Your task to perform on an android device: set the timer Image 0: 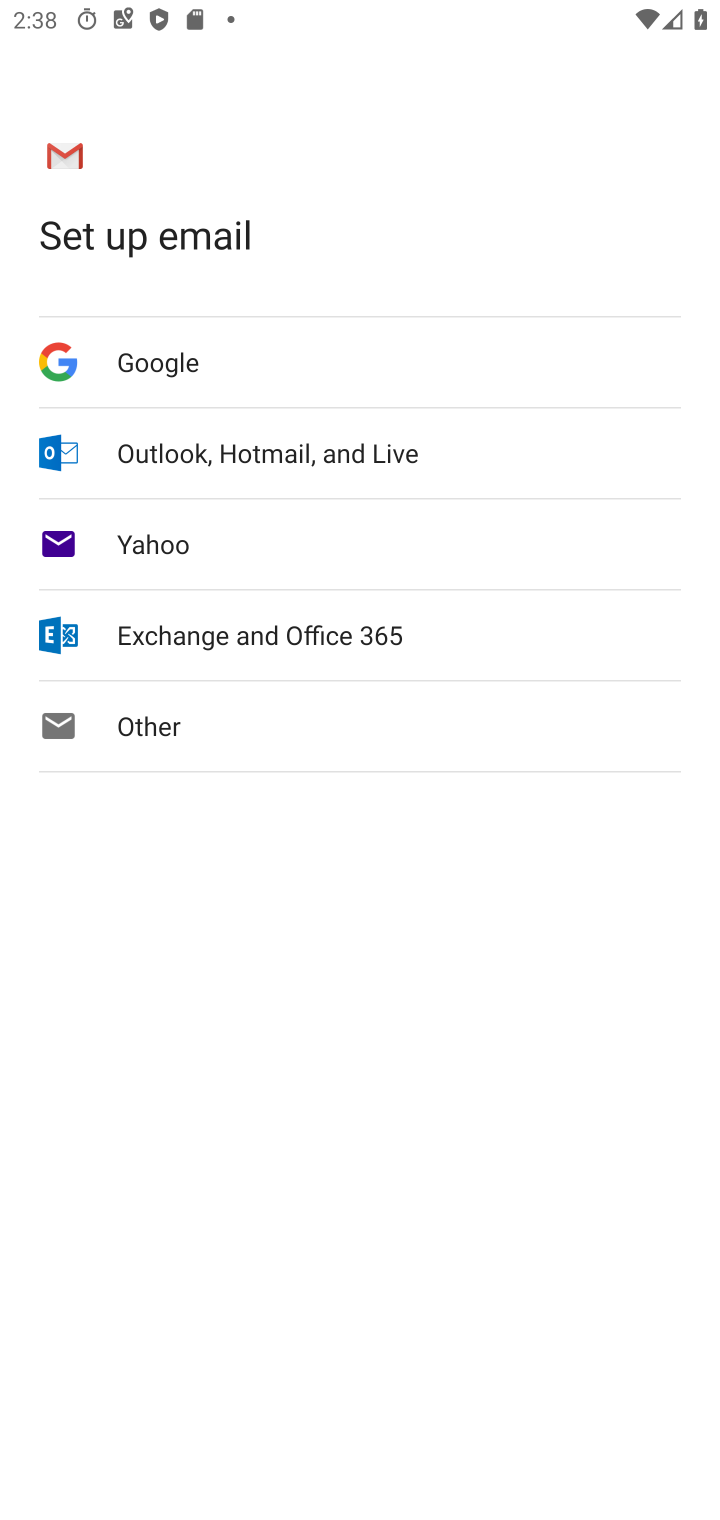
Step 0: press home button
Your task to perform on an android device: set the timer Image 1: 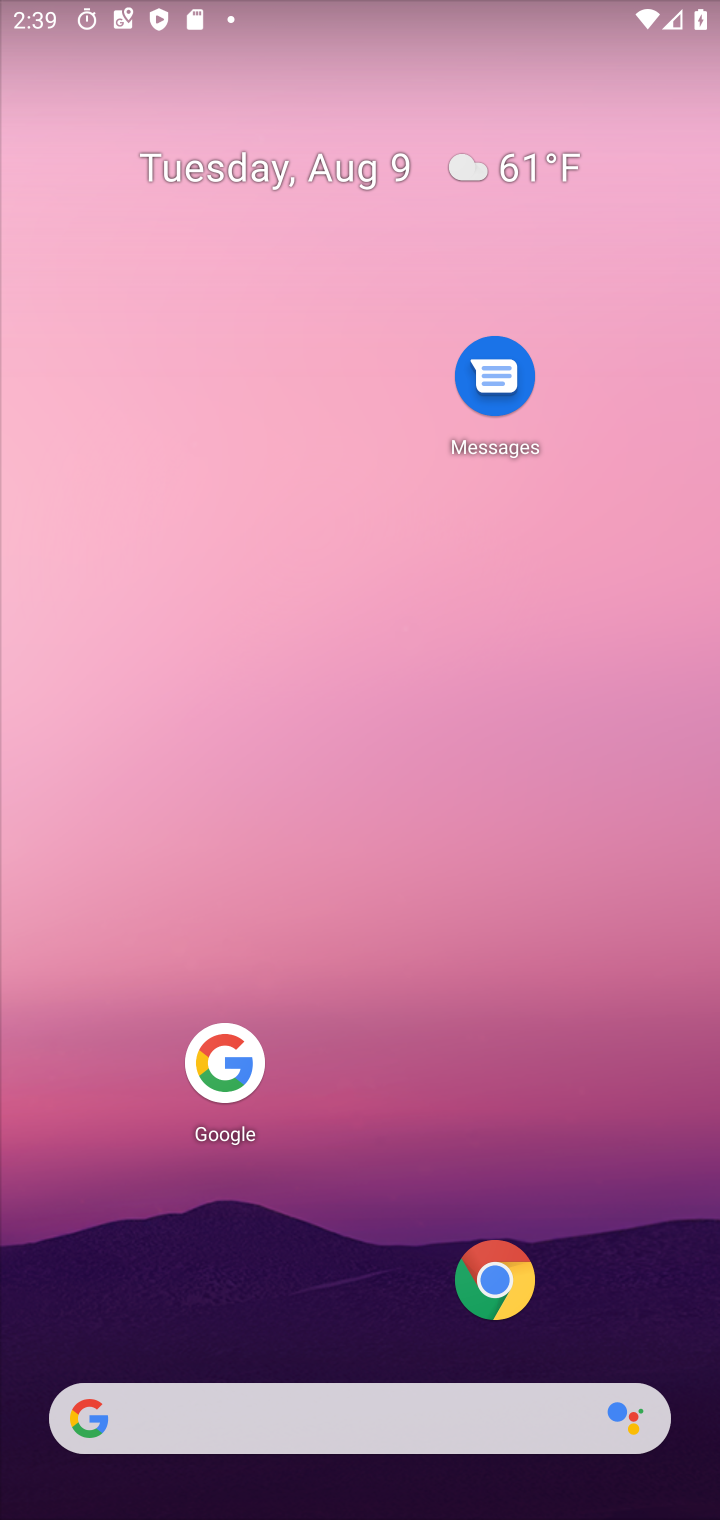
Step 1: drag from (326, 1415) to (472, 266)
Your task to perform on an android device: set the timer Image 2: 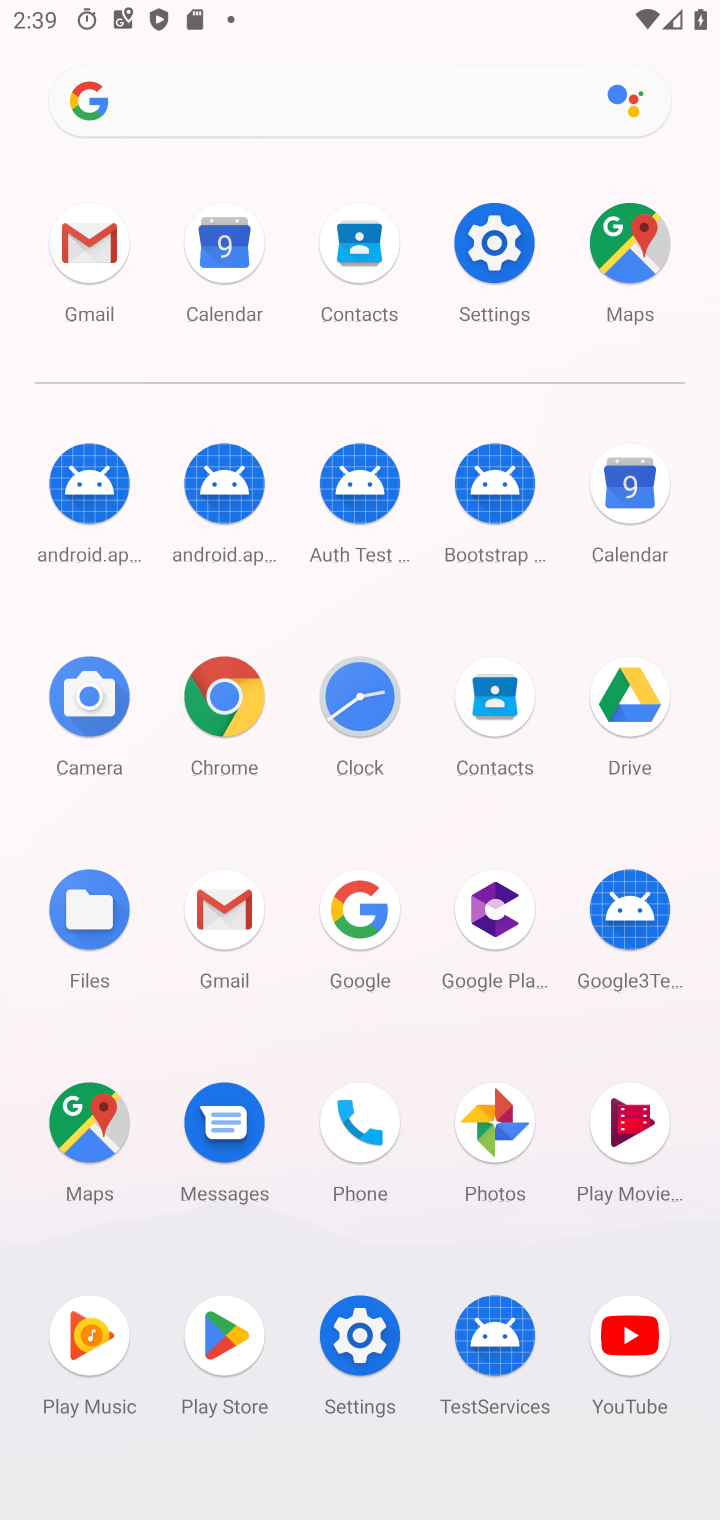
Step 2: click (359, 701)
Your task to perform on an android device: set the timer Image 3: 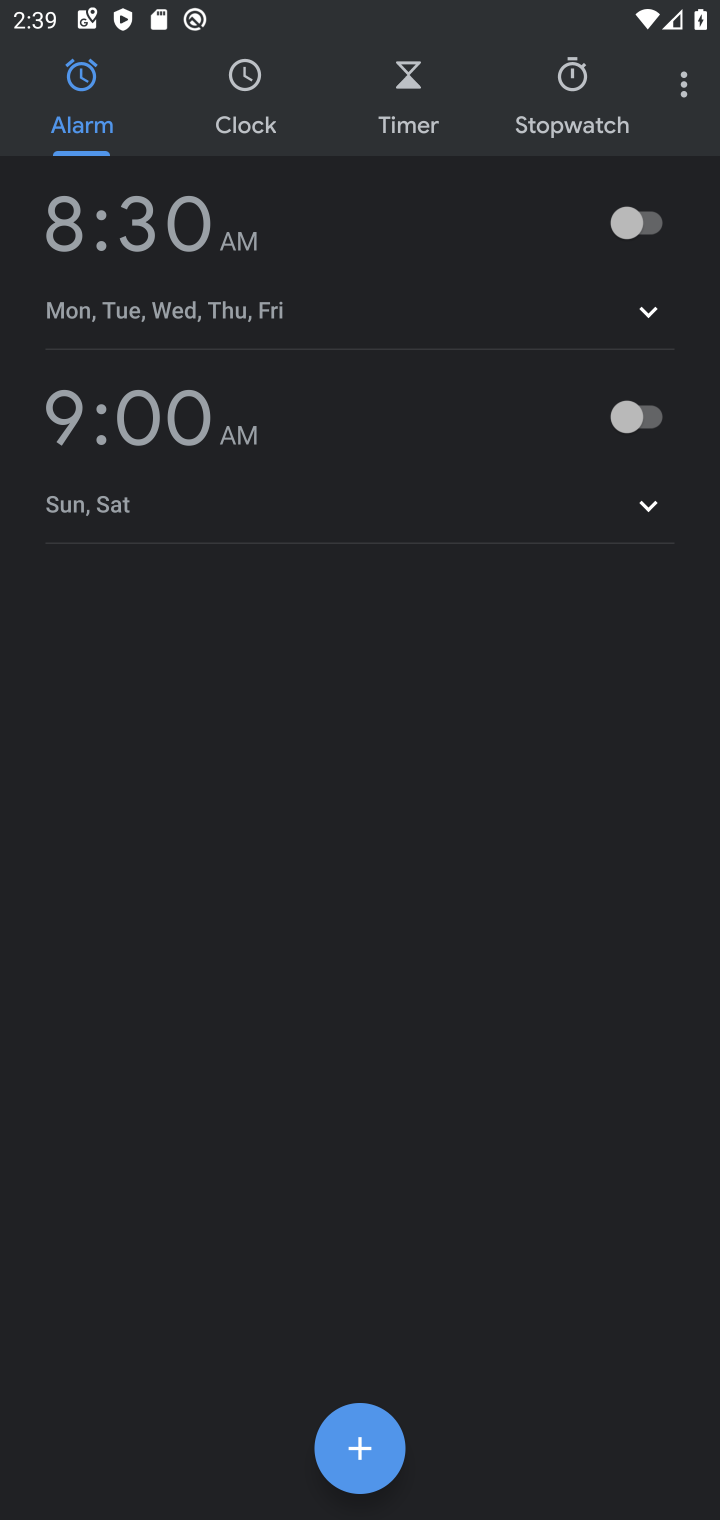
Step 3: click (386, 119)
Your task to perform on an android device: set the timer Image 4: 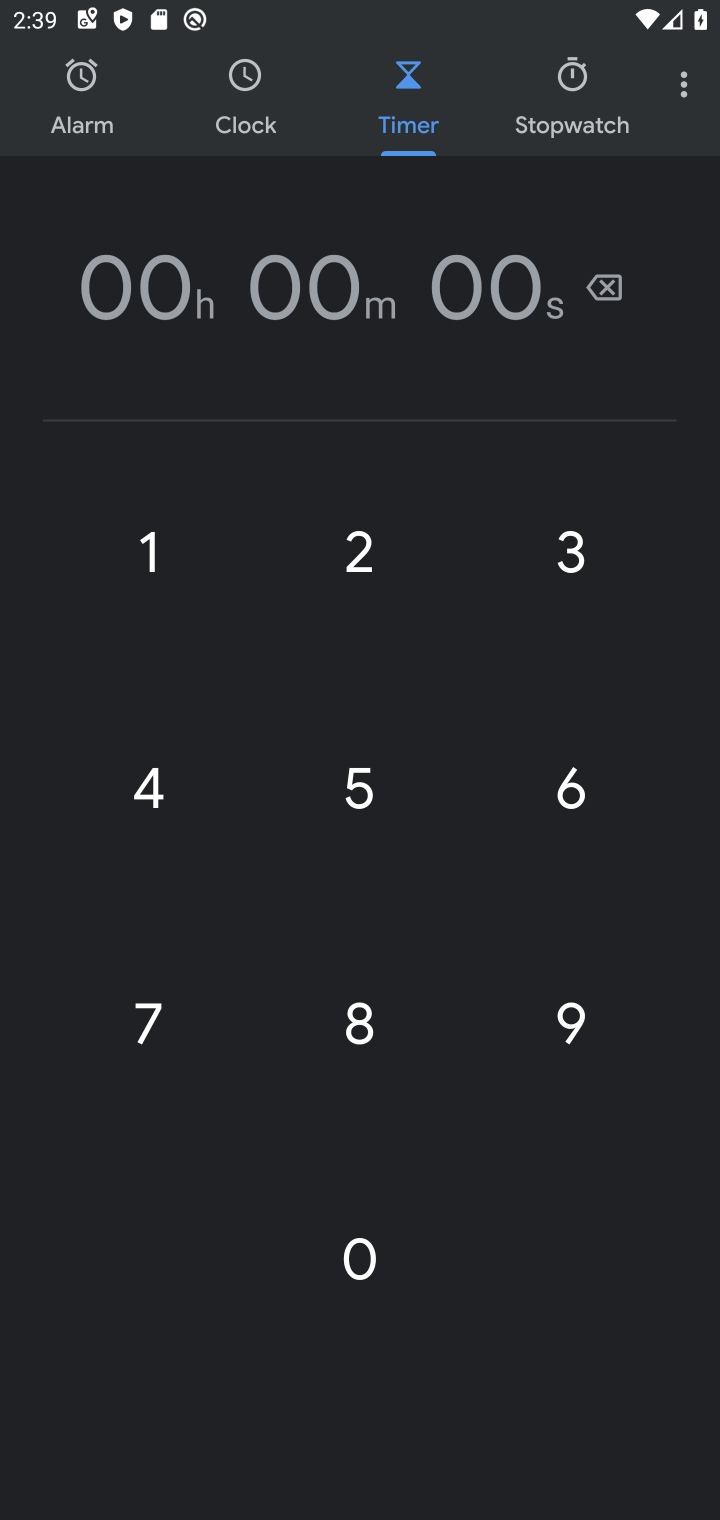
Step 4: click (137, 798)
Your task to perform on an android device: set the timer Image 5: 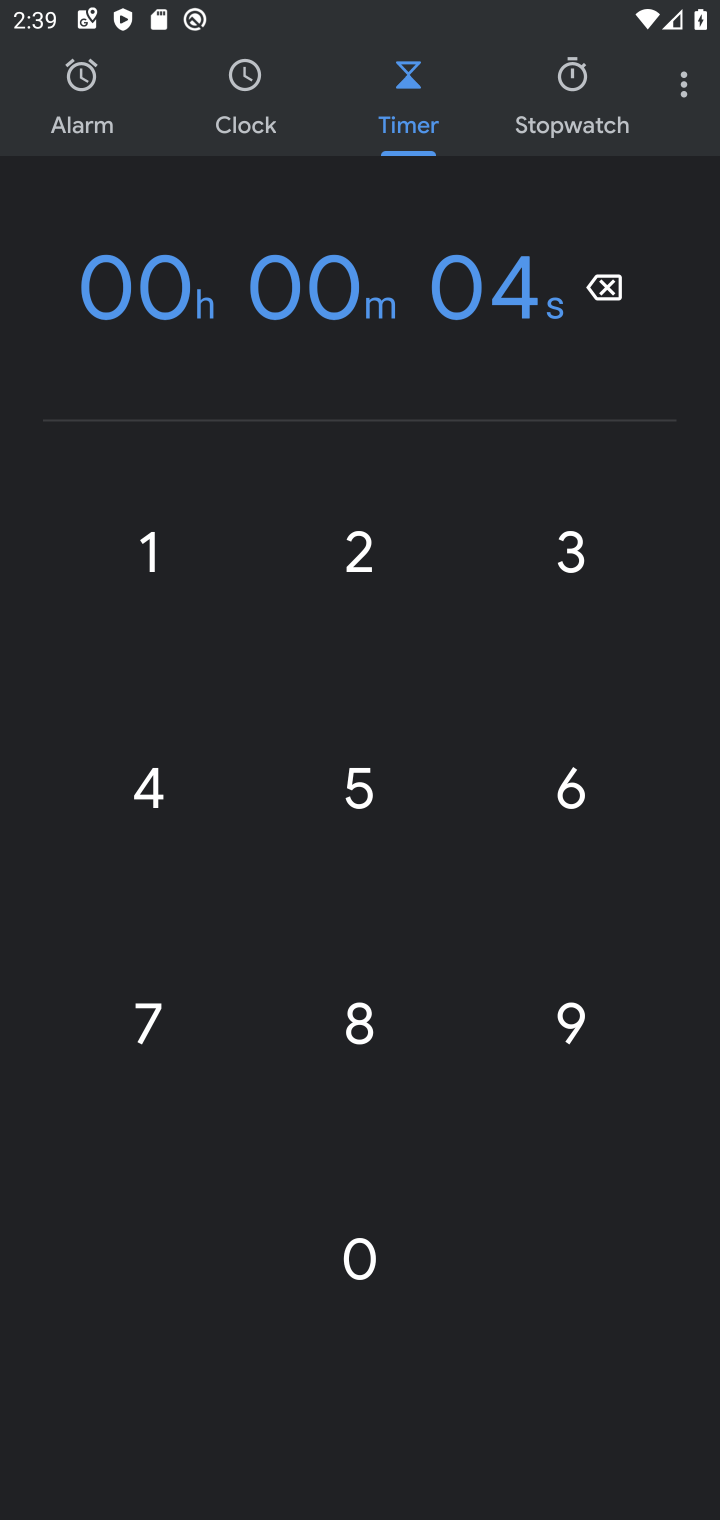
Step 5: click (577, 822)
Your task to perform on an android device: set the timer Image 6: 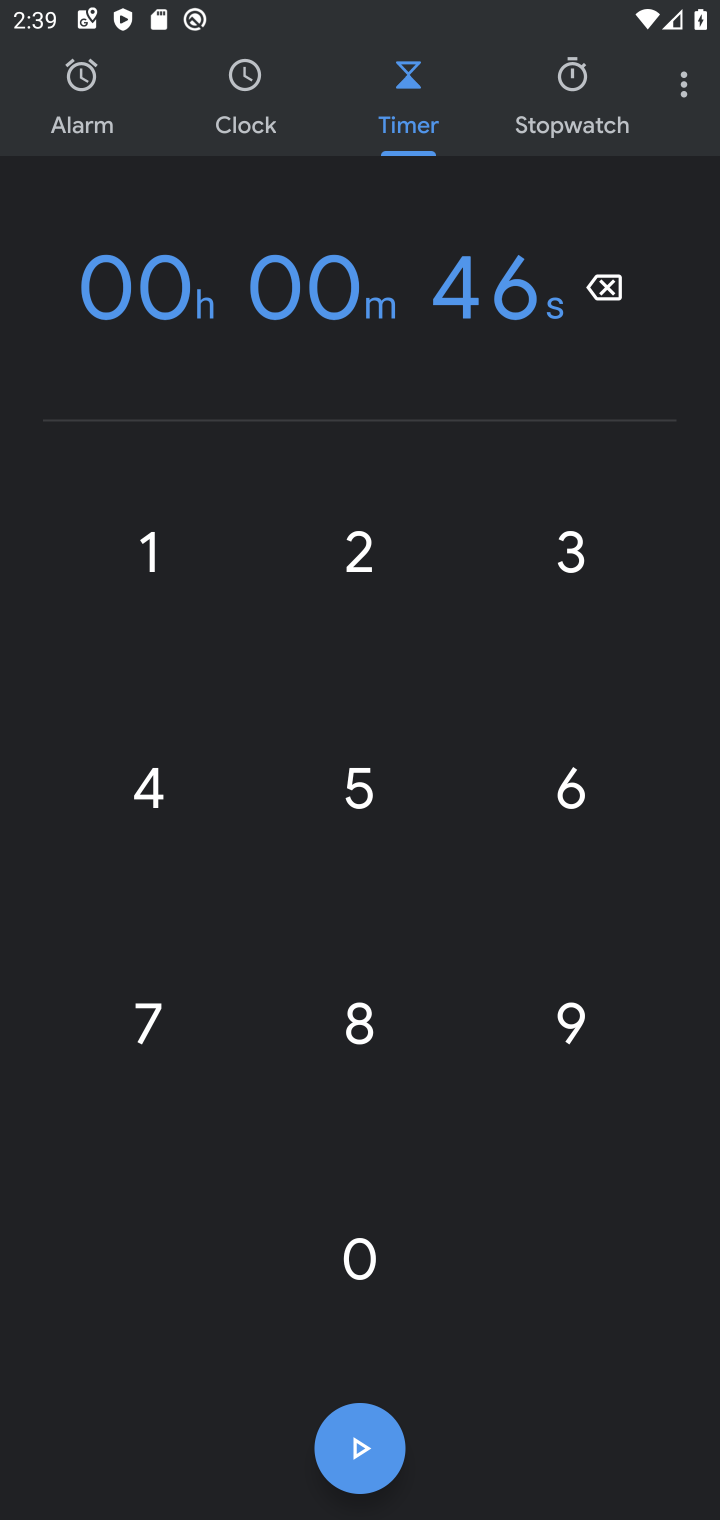
Step 6: click (377, 1446)
Your task to perform on an android device: set the timer Image 7: 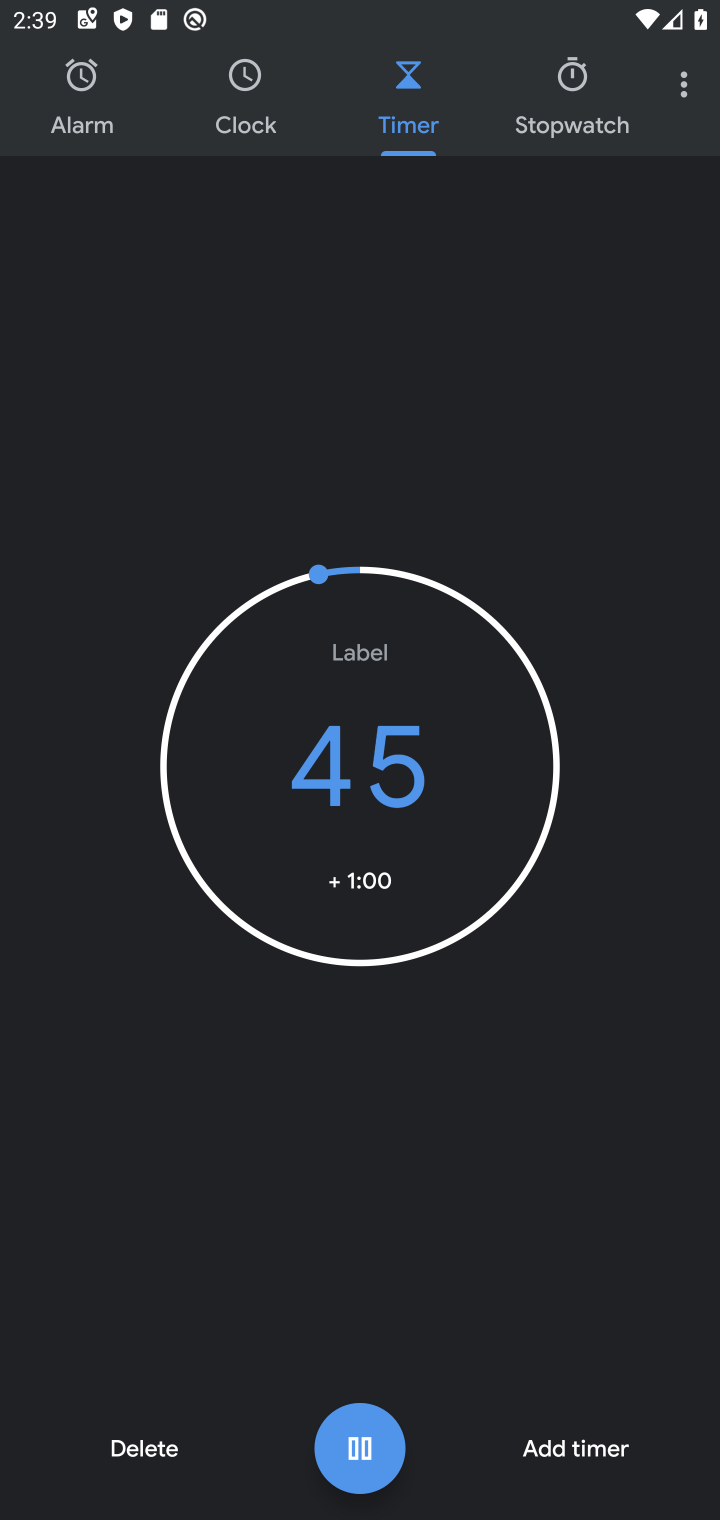
Step 7: click (354, 1452)
Your task to perform on an android device: set the timer Image 8: 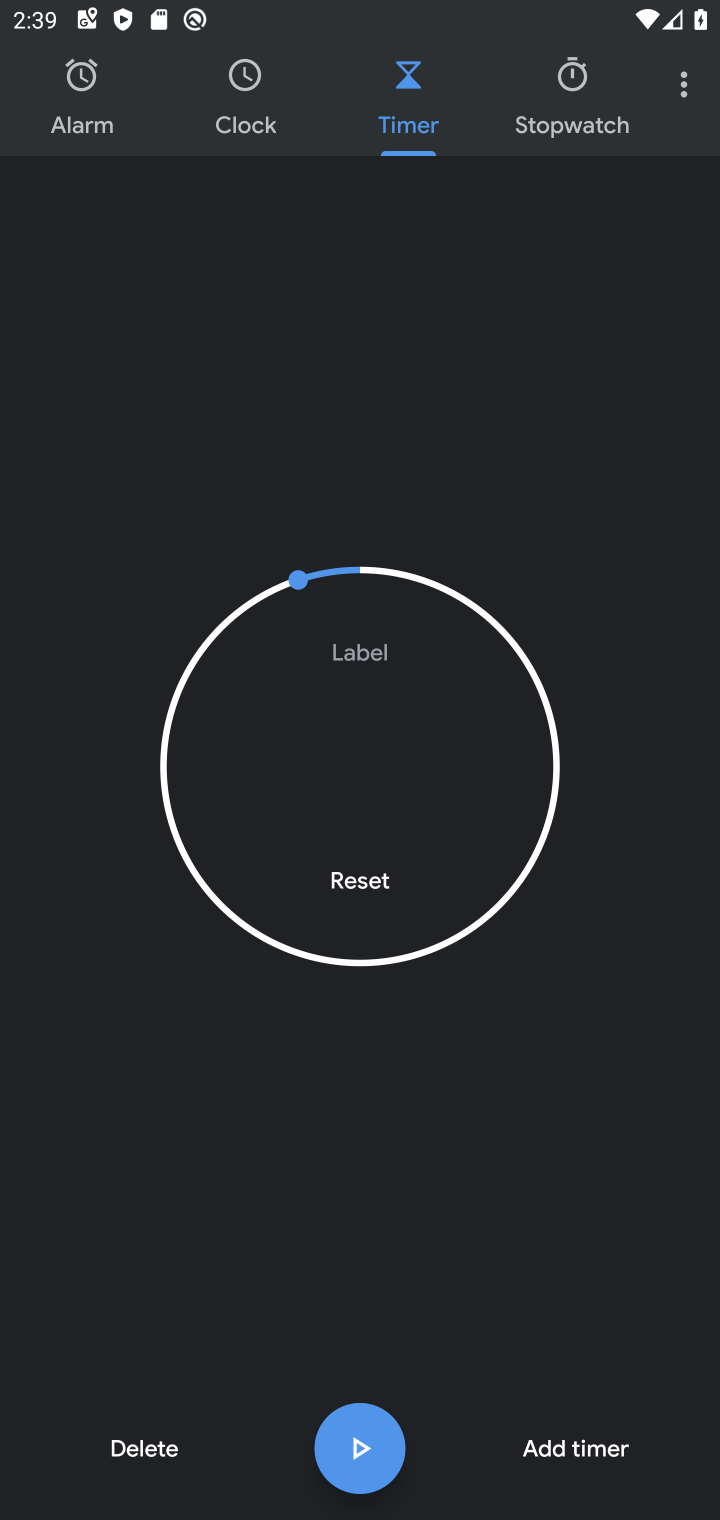
Step 8: task complete